Your task to perform on an android device: check data usage Image 0: 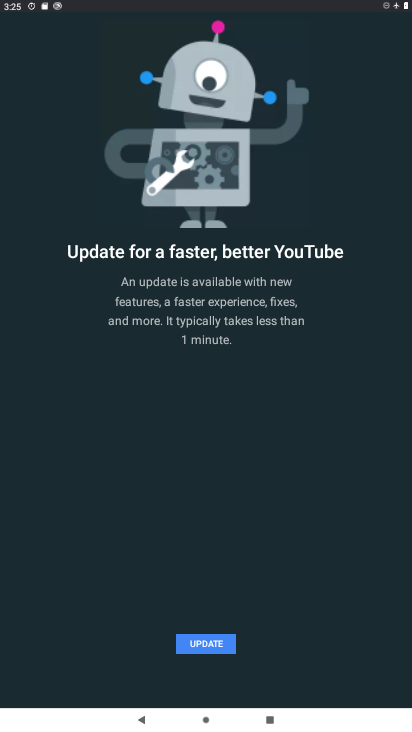
Step 0: press home button
Your task to perform on an android device: check data usage Image 1: 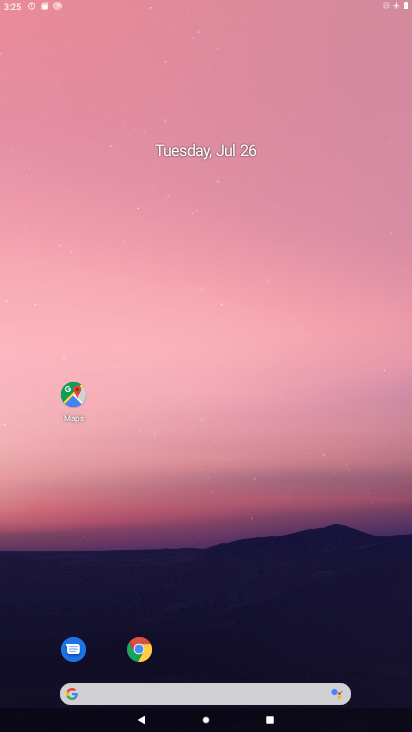
Step 1: drag from (373, 620) to (199, 51)
Your task to perform on an android device: check data usage Image 2: 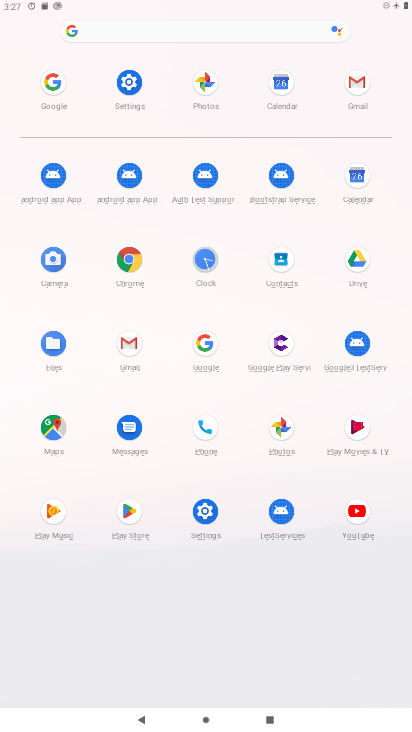
Step 2: click (208, 510)
Your task to perform on an android device: check data usage Image 3: 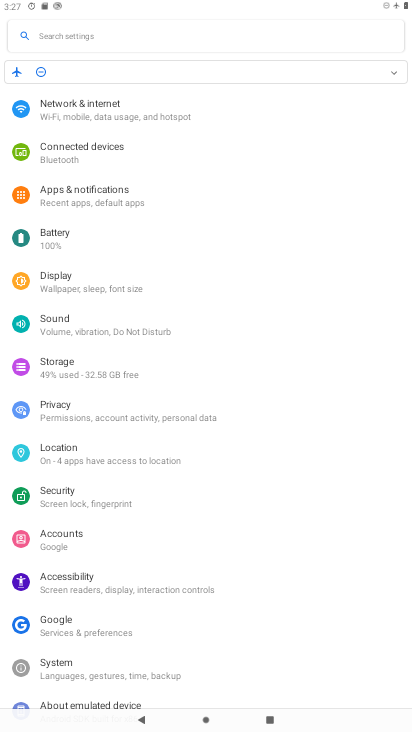
Step 3: click (148, 106)
Your task to perform on an android device: check data usage Image 4: 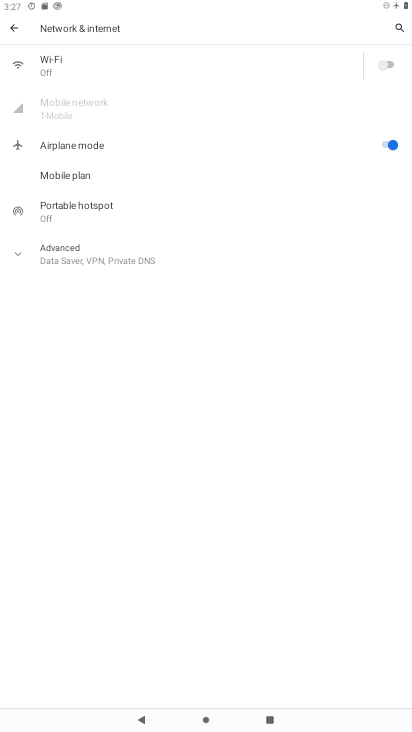
Step 4: task complete